Your task to perform on an android device: Is it going to rain today? Image 0: 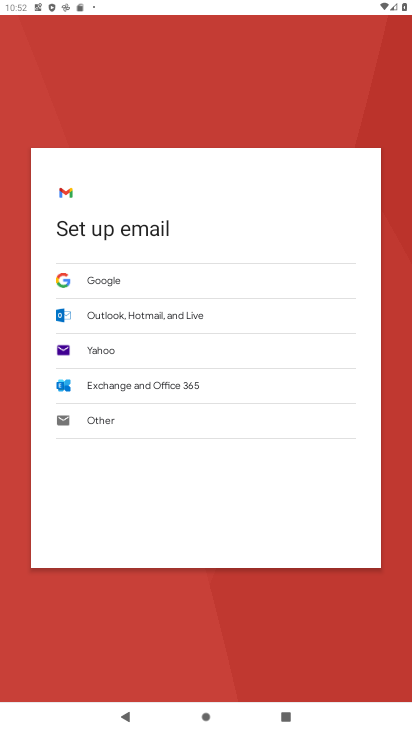
Step 0: press home button
Your task to perform on an android device: Is it going to rain today? Image 1: 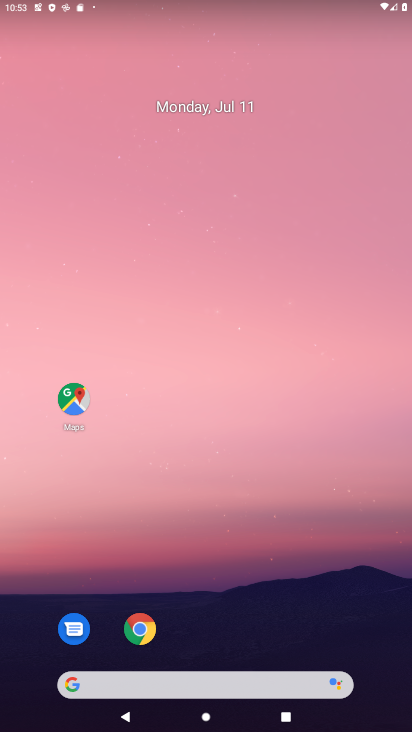
Step 1: click (223, 681)
Your task to perform on an android device: Is it going to rain today? Image 2: 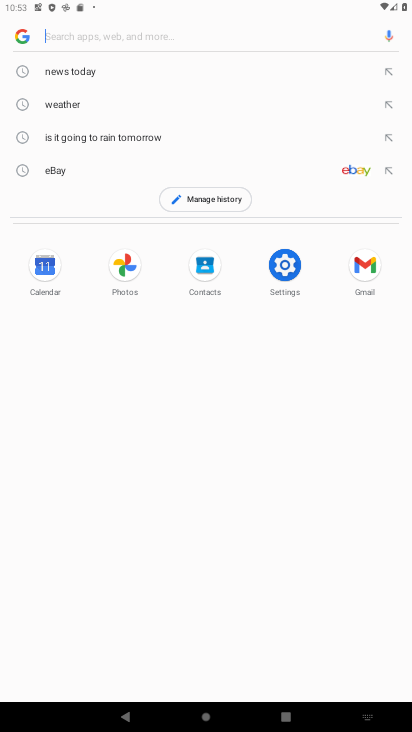
Step 2: click (111, 104)
Your task to perform on an android device: Is it going to rain today? Image 3: 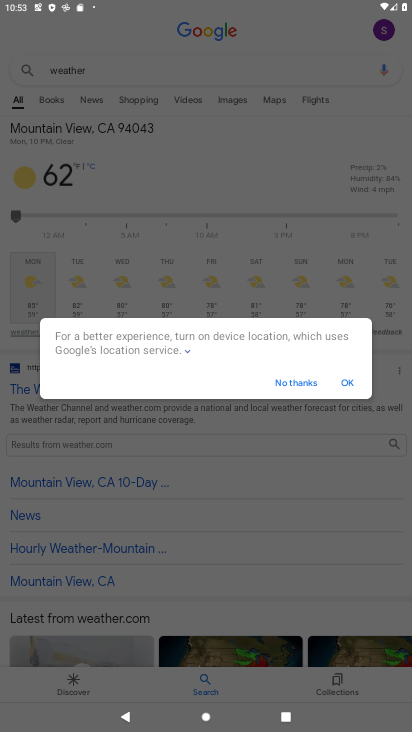
Step 3: click (286, 384)
Your task to perform on an android device: Is it going to rain today? Image 4: 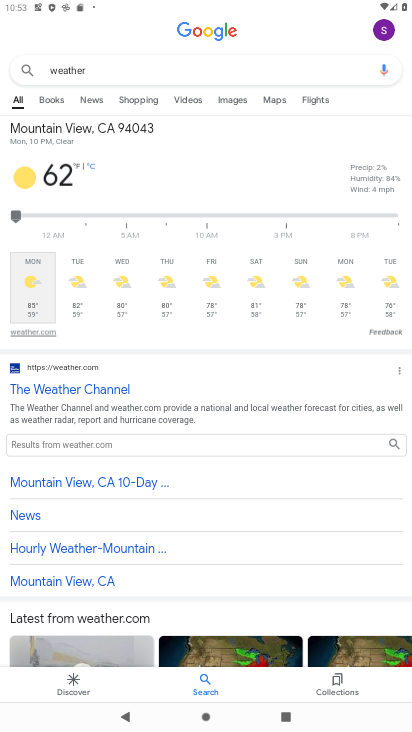
Step 4: task complete